Your task to perform on an android device: What is the speed of a tiger? Image 0: 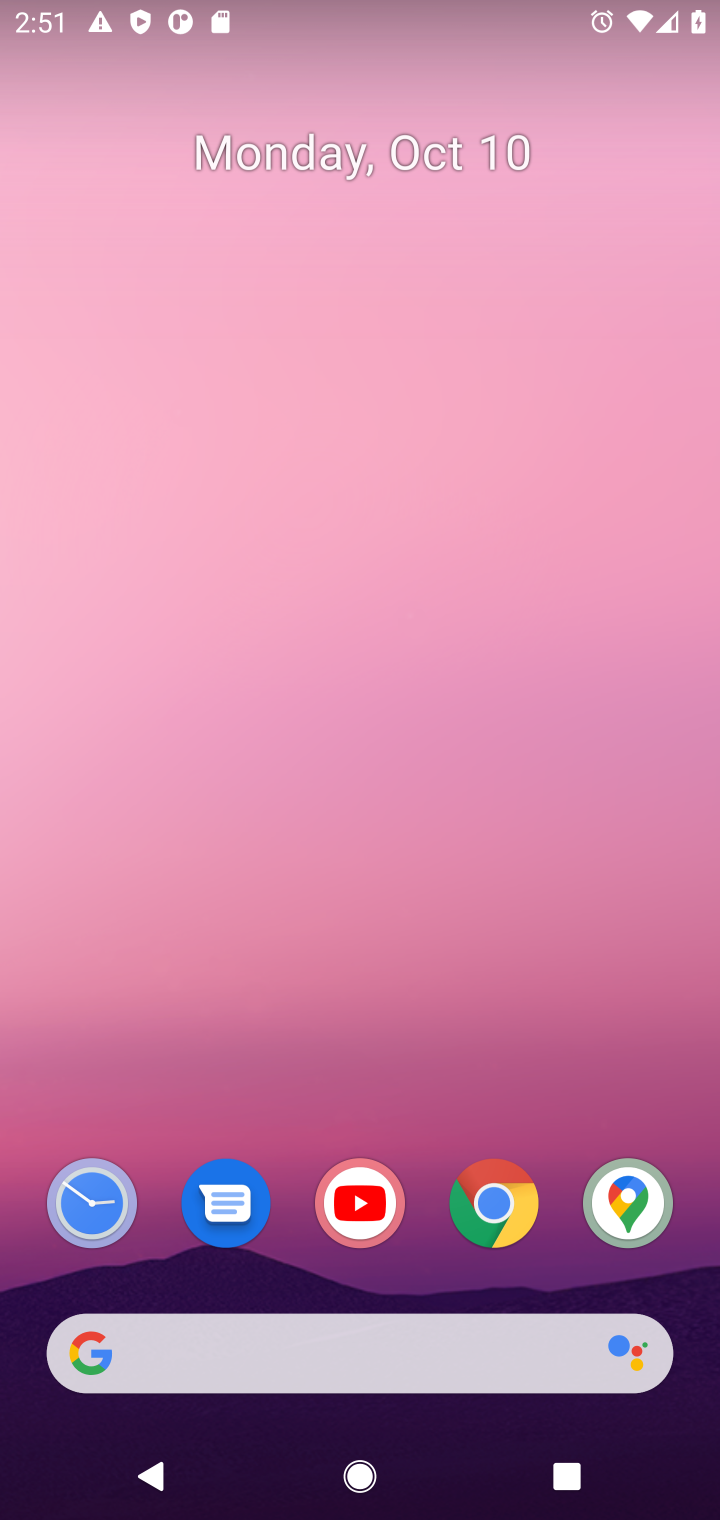
Step 0: click (96, 1208)
Your task to perform on an android device: What is the speed of a tiger? Image 1: 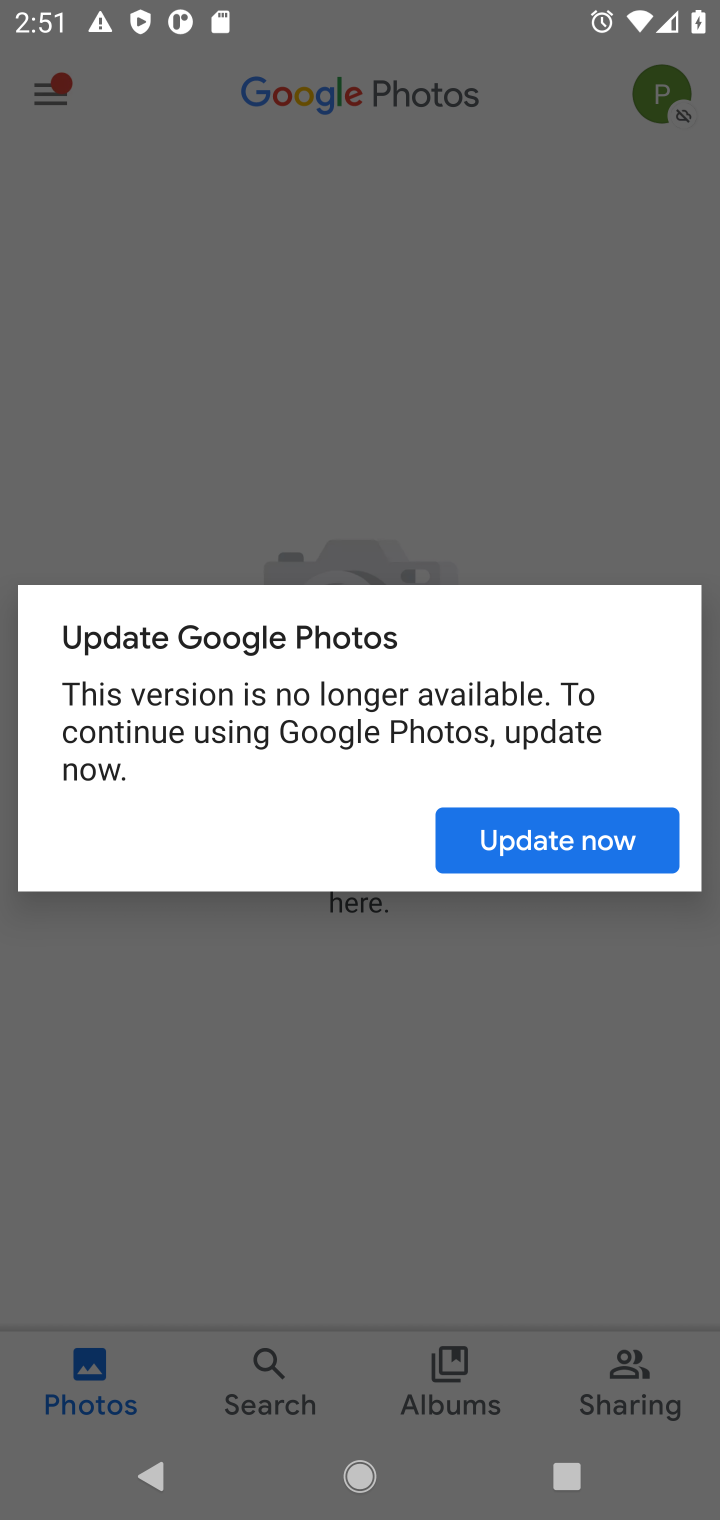
Step 1: press home button
Your task to perform on an android device: What is the speed of a tiger? Image 2: 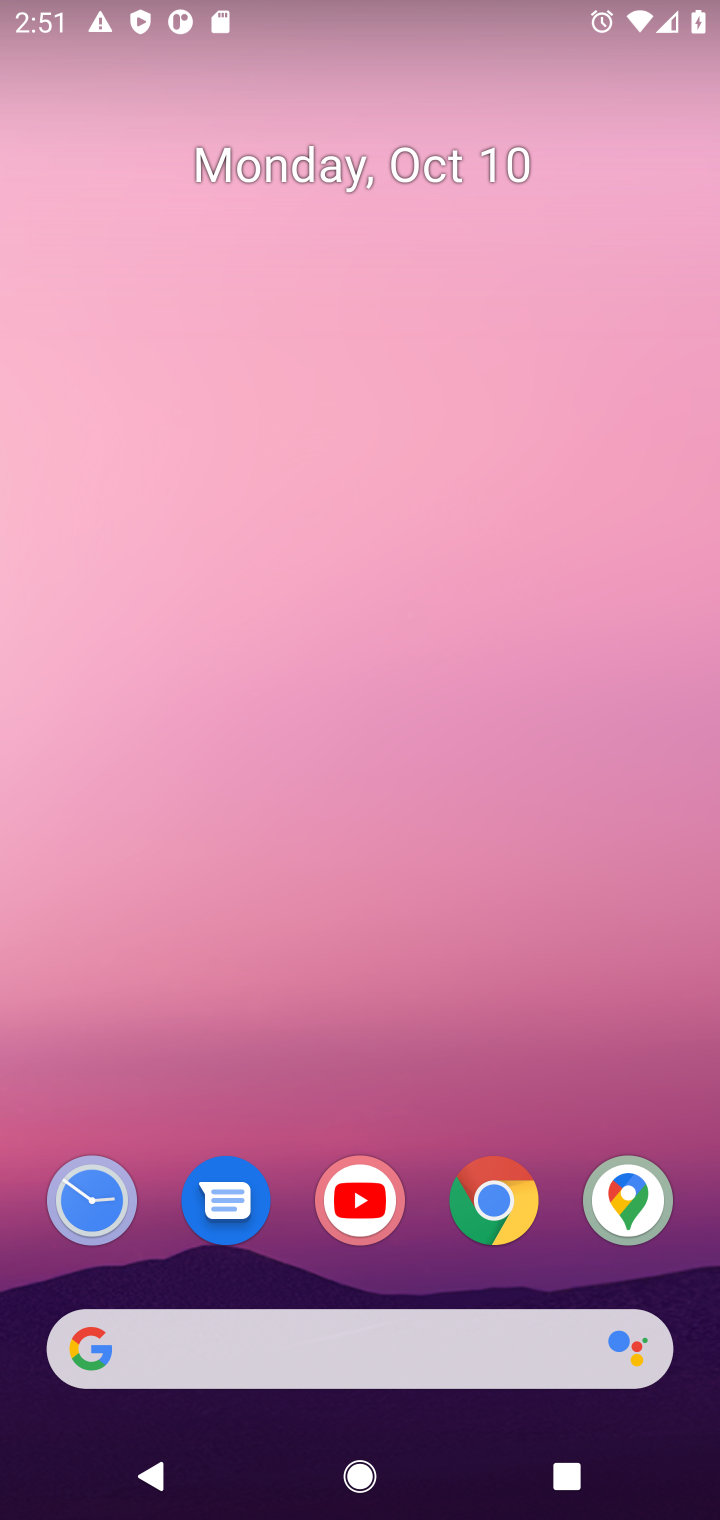
Step 2: click (487, 1219)
Your task to perform on an android device: What is the speed of a tiger? Image 3: 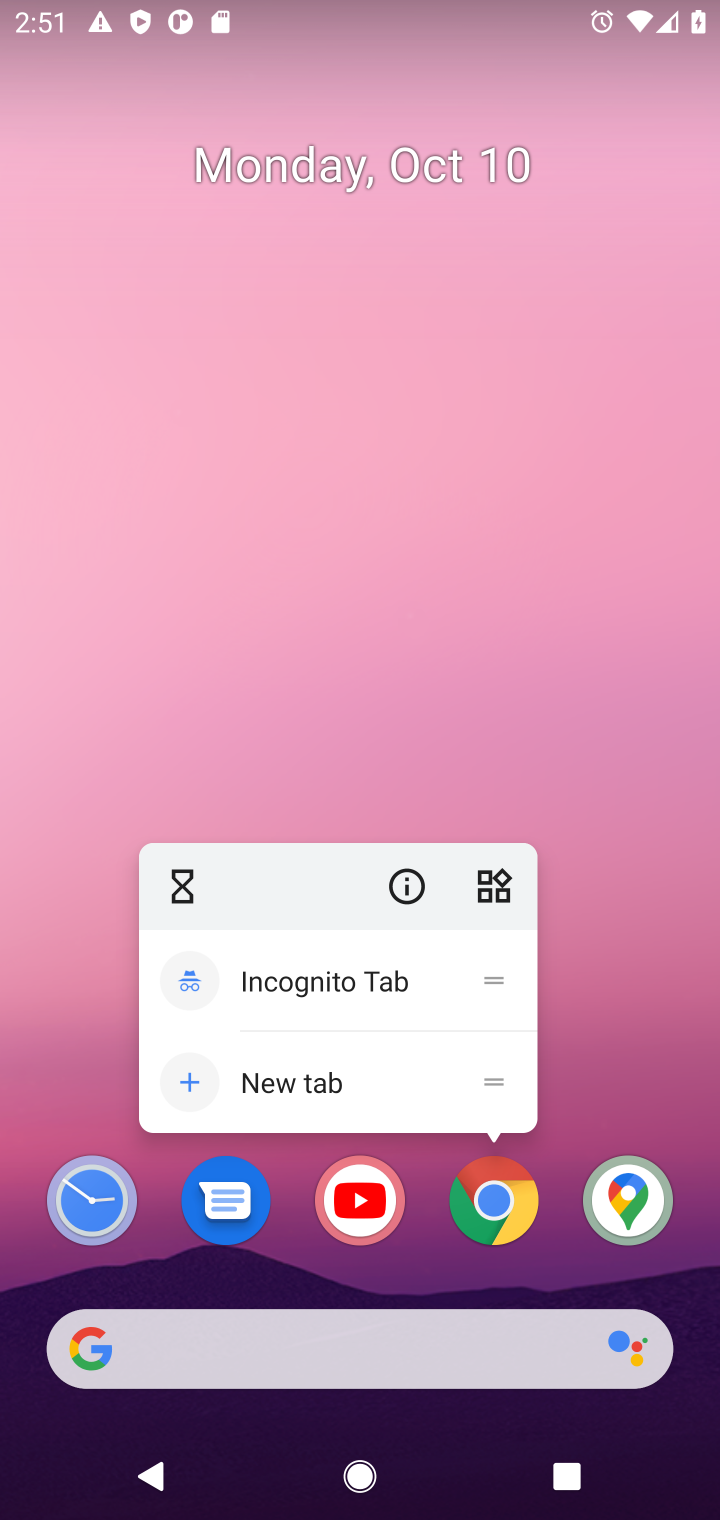
Step 3: click (481, 1213)
Your task to perform on an android device: What is the speed of a tiger? Image 4: 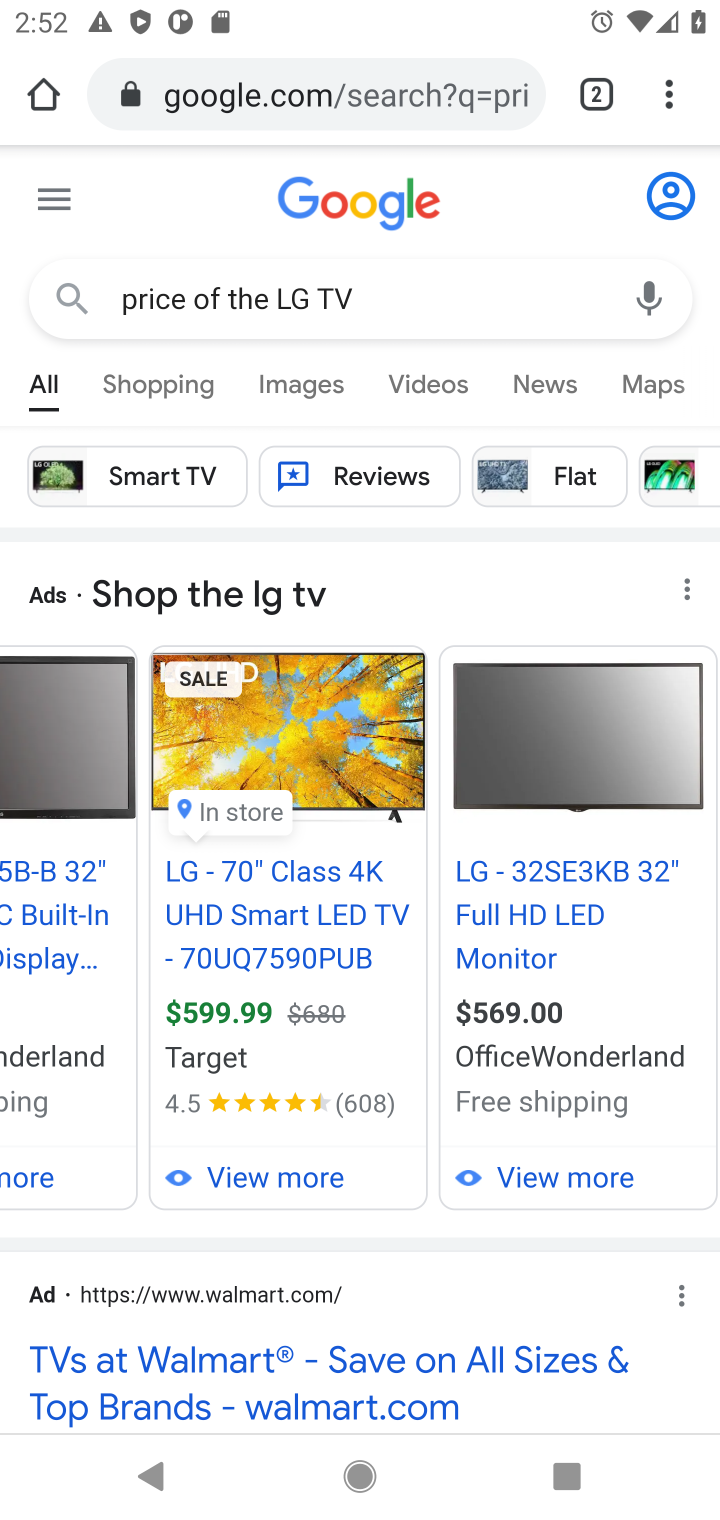
Step 4: click (344, 93)
Your task to perform on an android device: What is the speed of a tiger? Image 5: 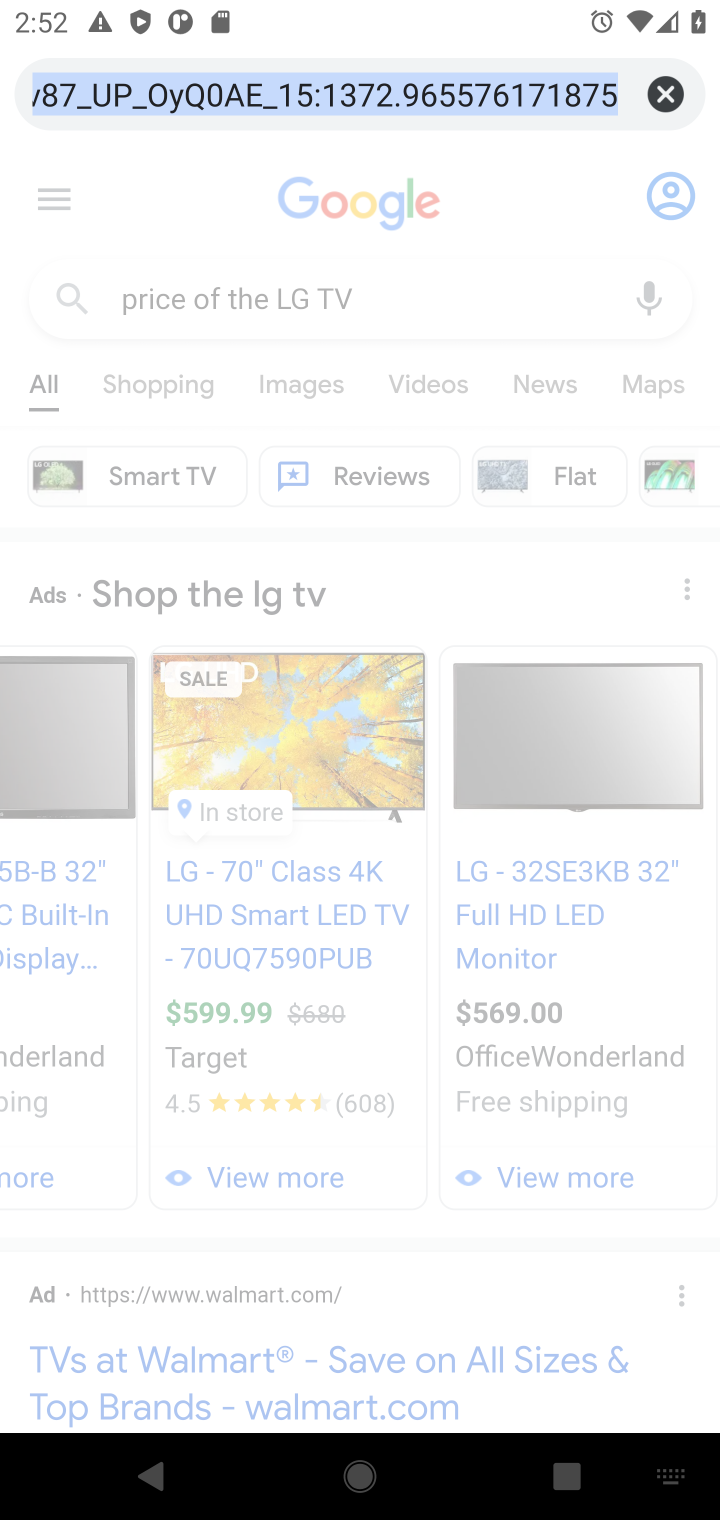
Step 5: type "speed of a tiger"
Your task to perform on an android device: What is the speed of a tiger? Image 6: 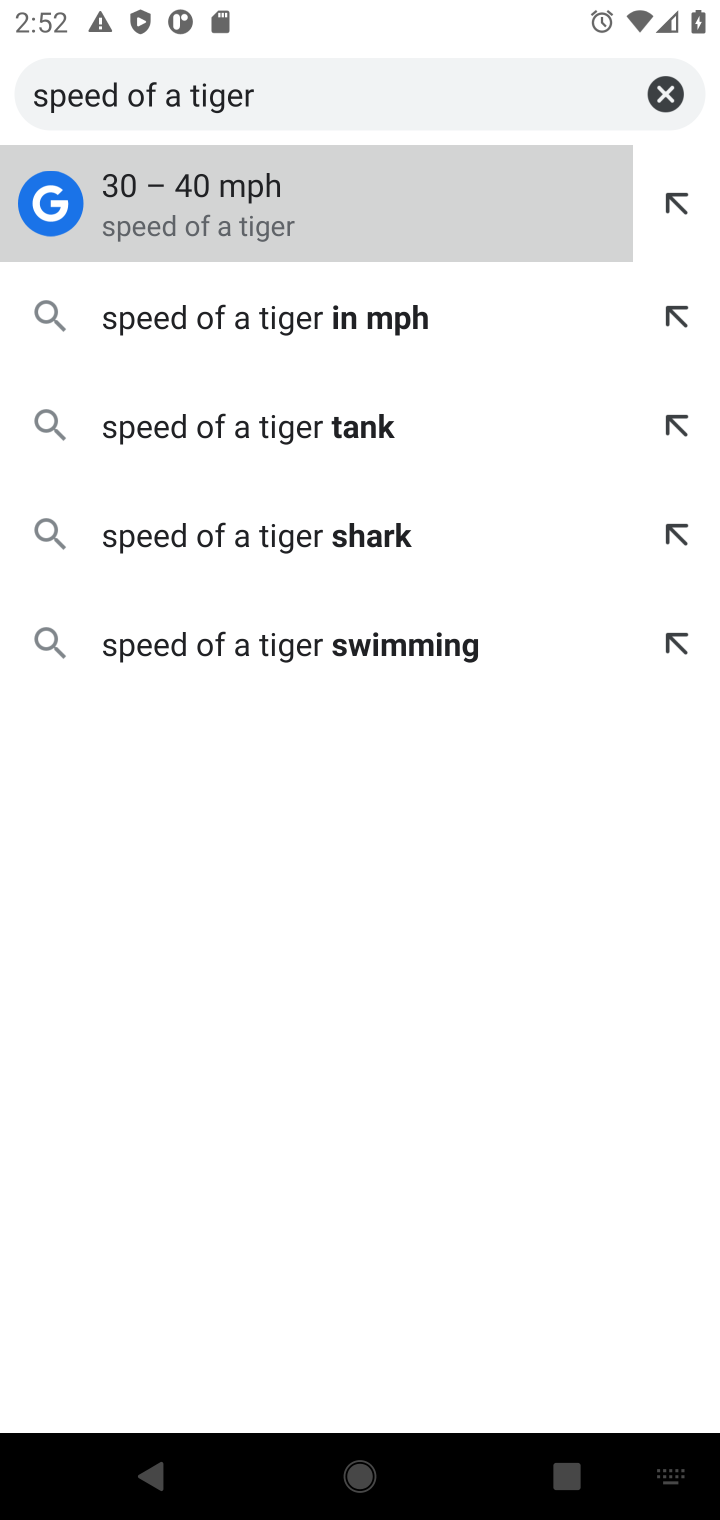
Step 6: type ""
Your task to perform on an android device: What is the speed of a tiger? Image 7: 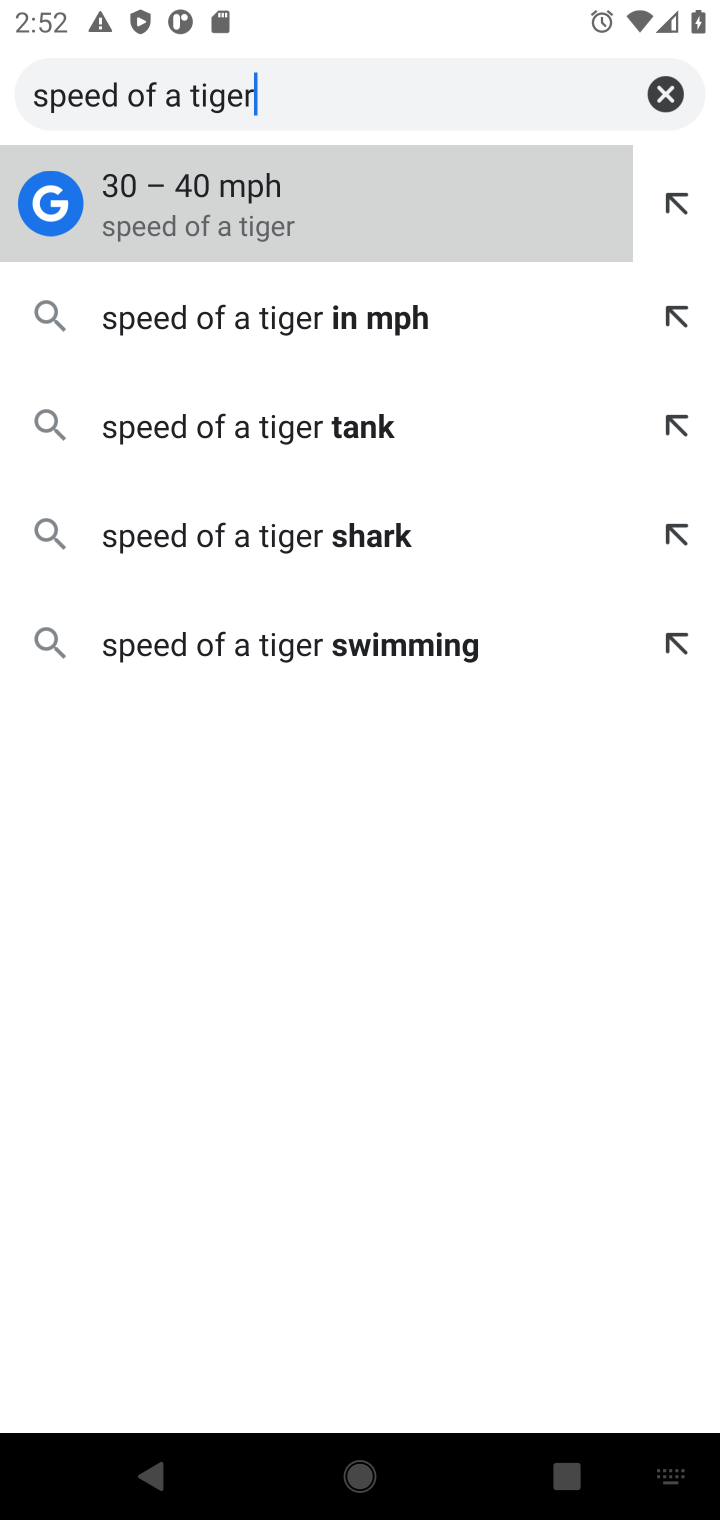
Step 7: click (371, 229)
Your task to perform on an android device: What is the speed of a tiger? Image 8: 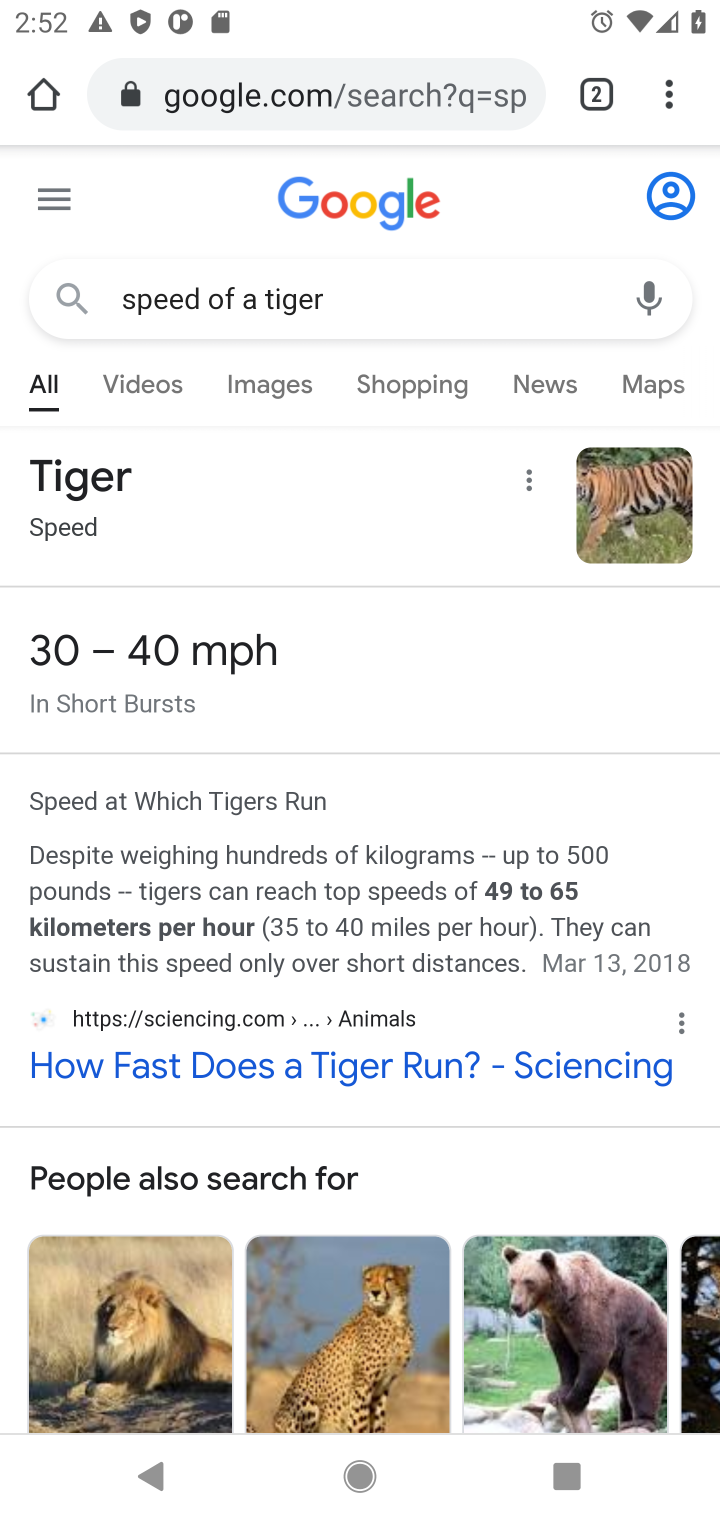
Step 8: task complete